Your task to perform on an android device: See recent photos Image 0: 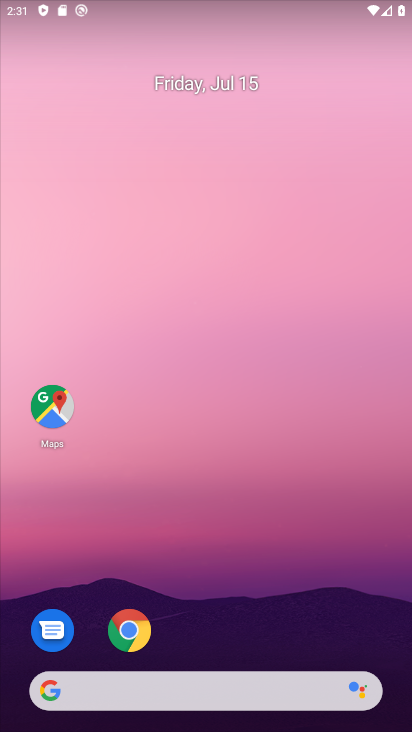
Step 0: drag from (293, 641) to (312, 50)
Your task to perform on an android device: See recent photos Image 1: 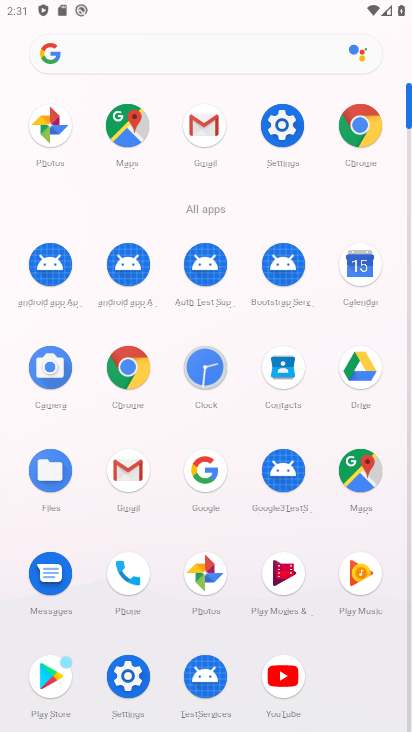
Step 1: click (199, 572)
Your task to perform on an android device: See recent photos Image 2: 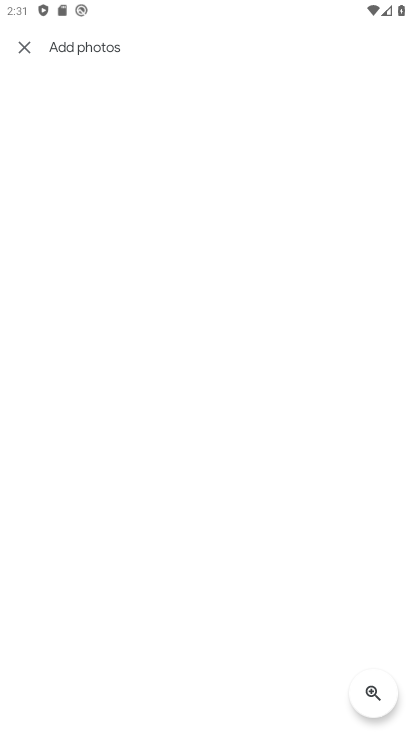
Step 2: click (25, 53)
Your task to perform on an android device: See recent photos Image 3: 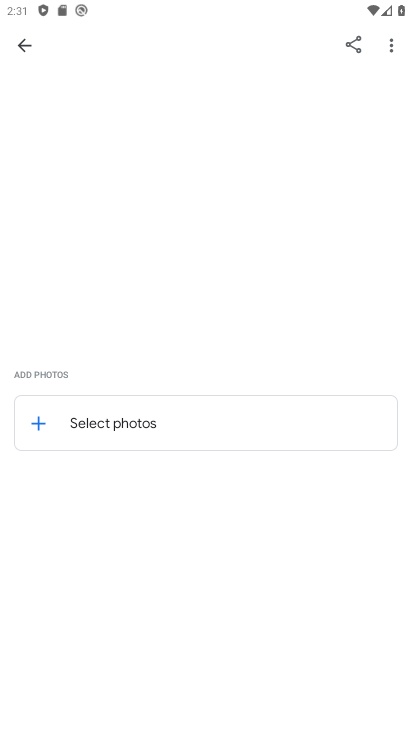
Step 3: click (25, 47)
Your task to perform on an android device: See recent photos Image 4: 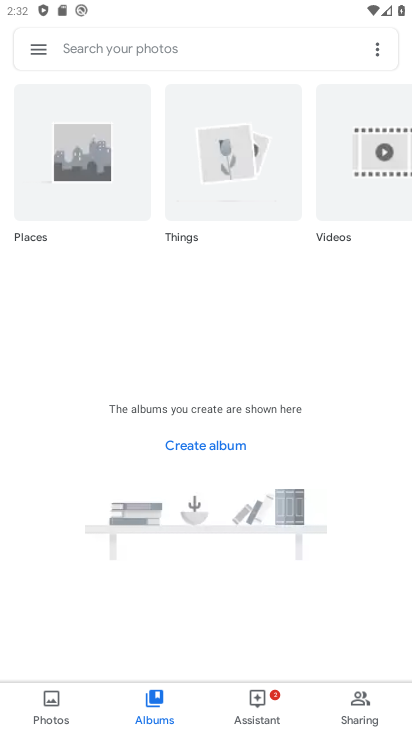
Step 4: click (44, 691)
Your task to perform on an android device: See recent photos Image 5: 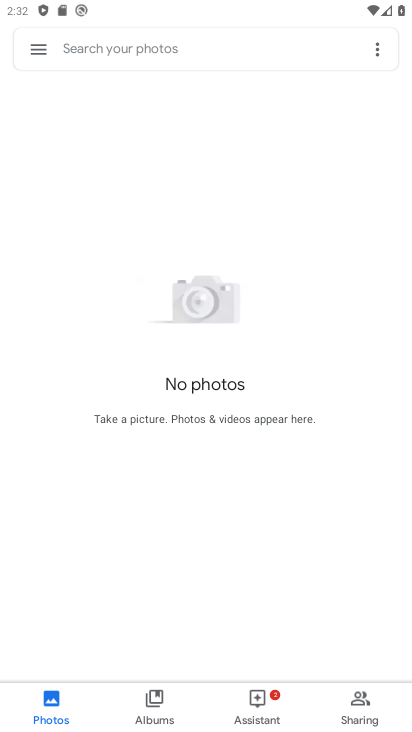
Step 5: task complete